Your task to perform on an android device: find snoozed emails in the gmail app Image 0: 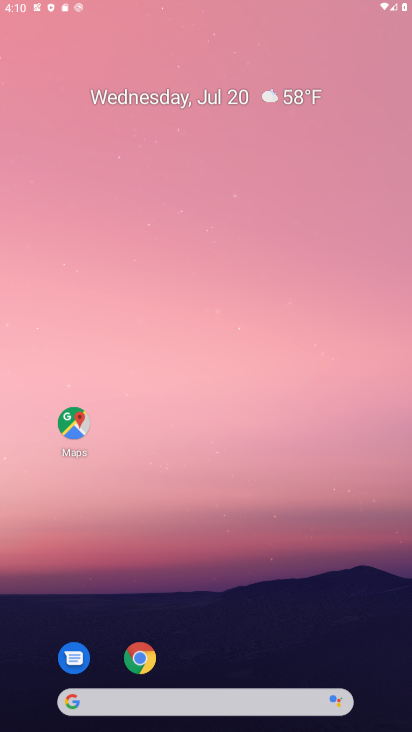
Step 0: press back button
Your task to perform on an android device: find snoozed emails in the gmail app Image 1: 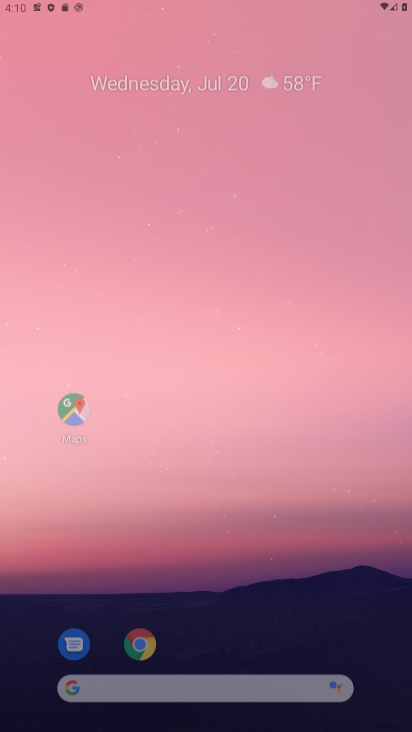
Step 1: drag from (214, 500) to (168, 223)
Your task to perform on an android device: find snoozed emails in the gmail app Image 2: 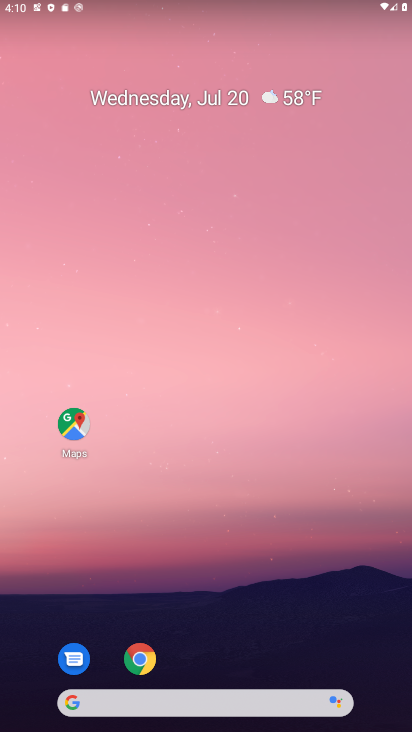
Step 2: drag from (232, 520) to (211, 168)
Your task to perform on an android device: find snoozed emails in the gmail app Image 3: 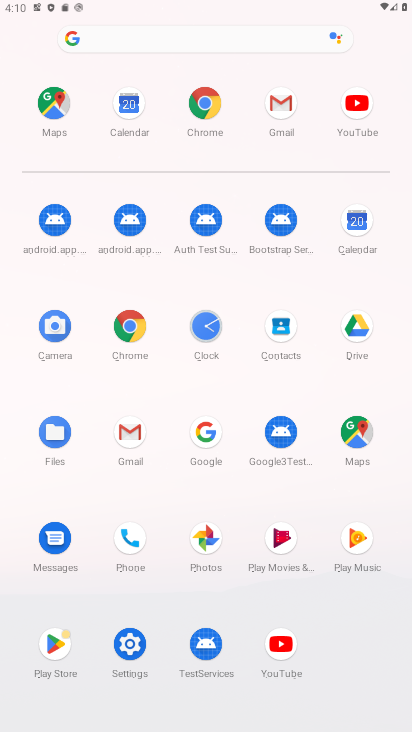
Step 3: drag from (253, 581) to (200, 185)
Your task to perform on an android device: find snoozed emails in the gmail app Image 4: 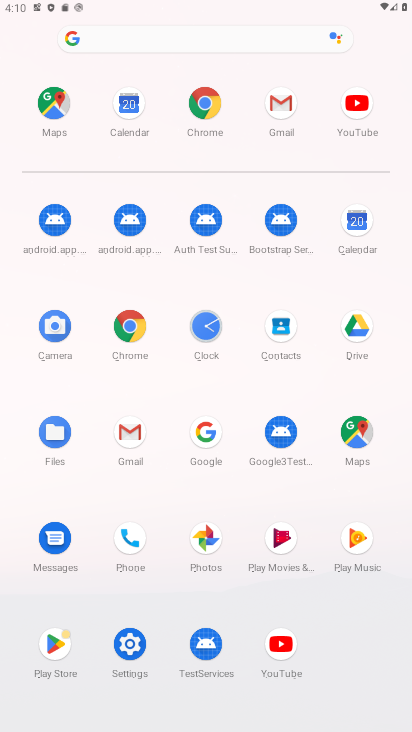
Step 4: click (132, 429)
Your task to perform on an android device: find snoozed emails in the gmail app Image 5: 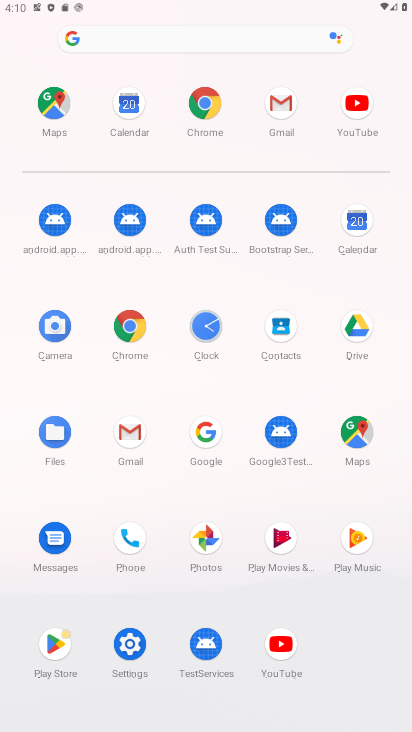
Step 5: click (131, 428)
Your task to perform on an android device: find snoozed emails in the gmail app Image 6: 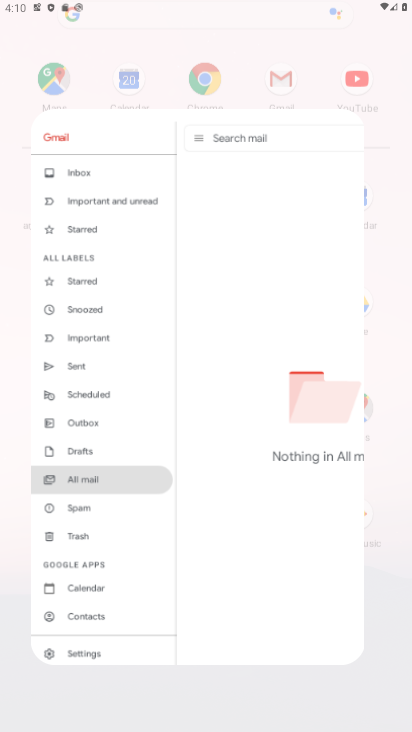
Step 6: click (138, 427)
Your task to perform on an android device: find snoozed emails in the gmail app Image 7: 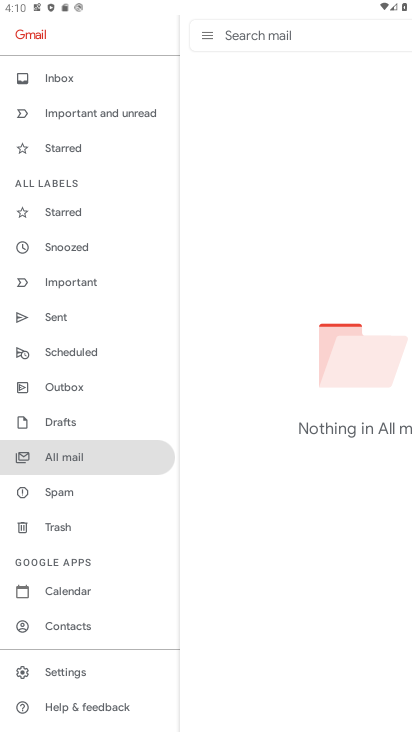
Step 7: click (76, 247)
Your task to perform on an android device: find snoozed emails in the gmail app Image 8: 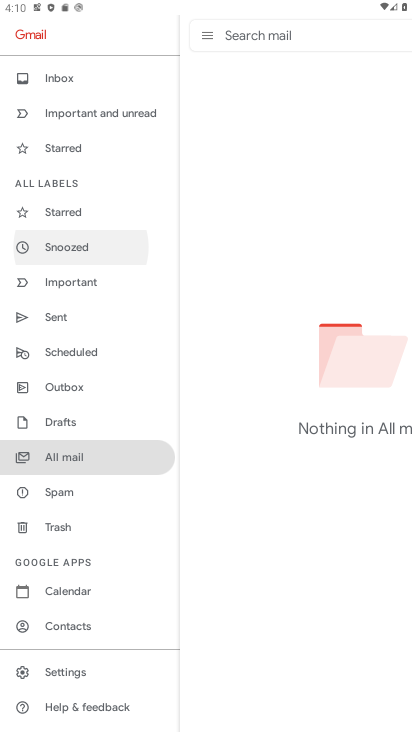
Step 8: click (76, 247)
Your task to perform on an android device: find snoozed emails in the gmail app Image 9: 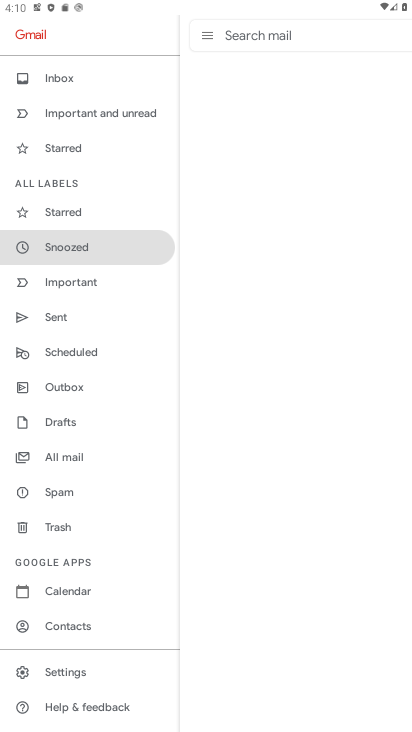
Step 9: click (77, 244)
Your task to perform on an android device: find snoozed emails in the gmail app Image 10: 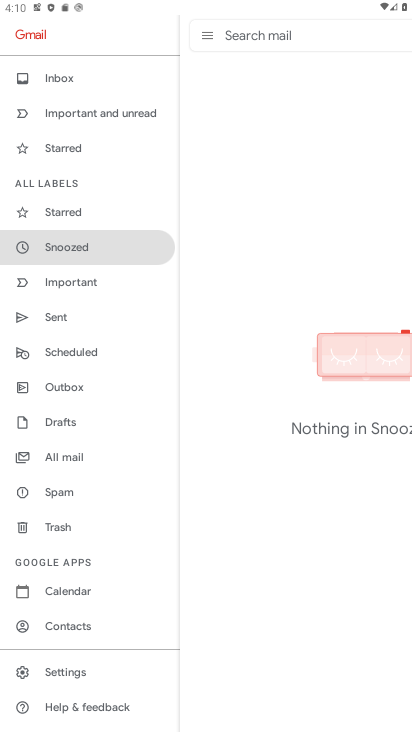
Step 10: task complete